Your task to perform on an android device: Open Yahoo.com Image 0: 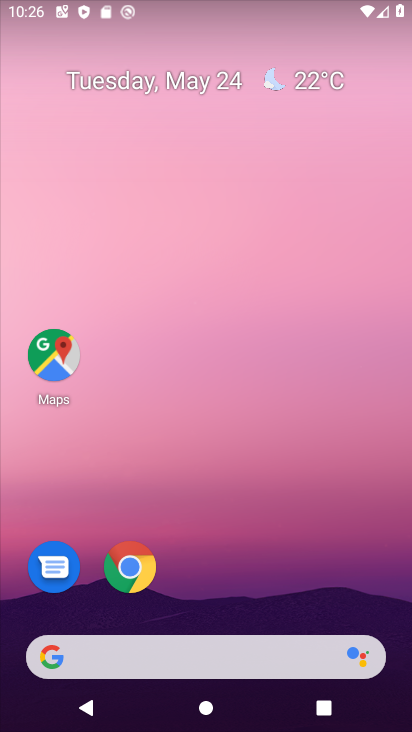
Step 0: click (123, 577)
Your task to perform on an android device: Open Yahoo.com Image 1: 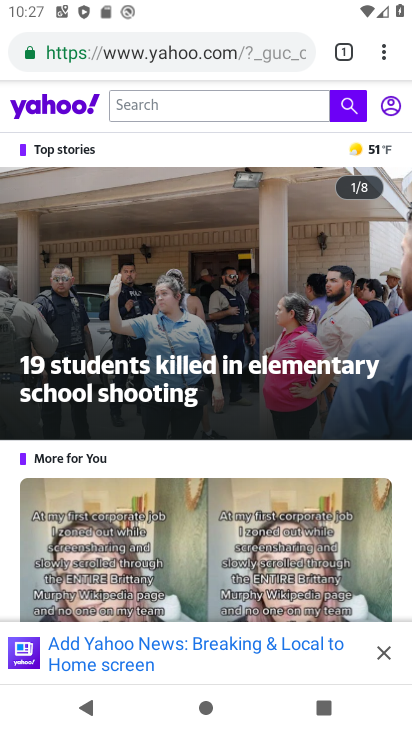
Step 1: task complete